Your task to perform on an android device: turn on location history Image 0: 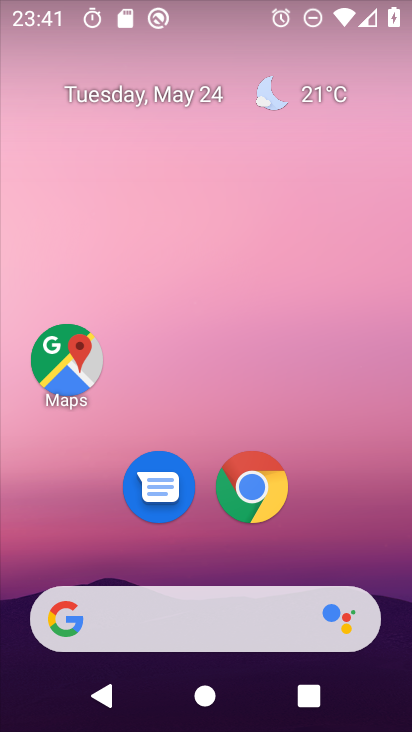
Step 0: click (68, 357)
Your task to perform on an android device: turn on location history Image 1: 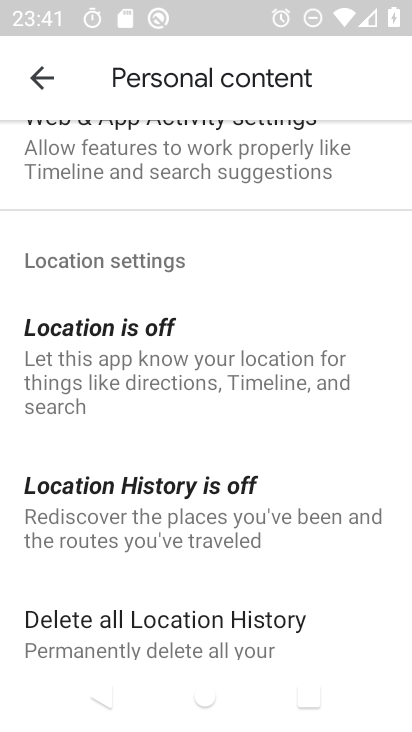
Step 1: click (134, 507)
Your task to perform on an android device: turn on location history Image 2: 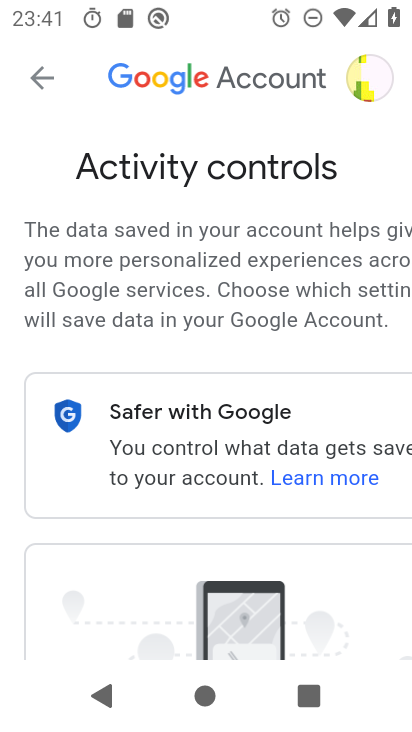
Step 2: drag from (163, 567) to (150, 17)
Your task to perform on an android device: turn on location history Image 3: 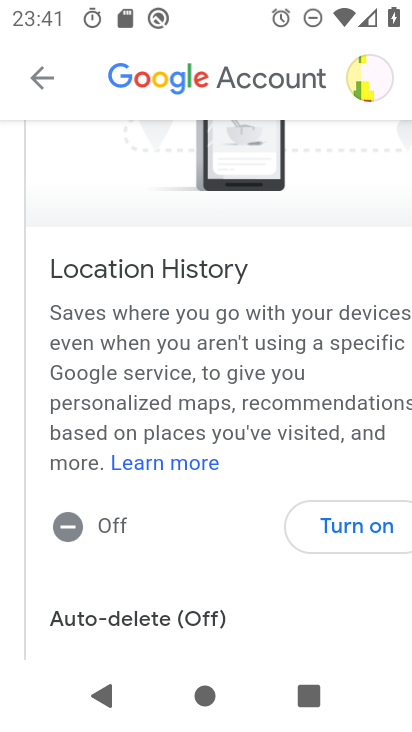
Step 3: click (345, 527)
Your task to perform on an android device: turn on location history Image 4: 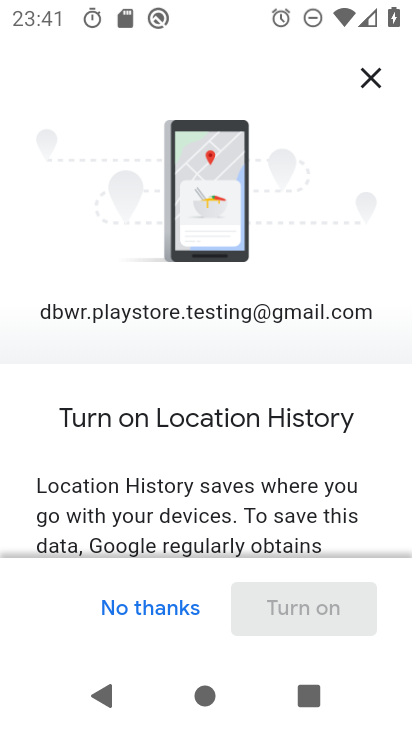
Step 4: drag from (175, 521) to (174, 33)
Your task to perform on an android device: turn on location history Image 5: 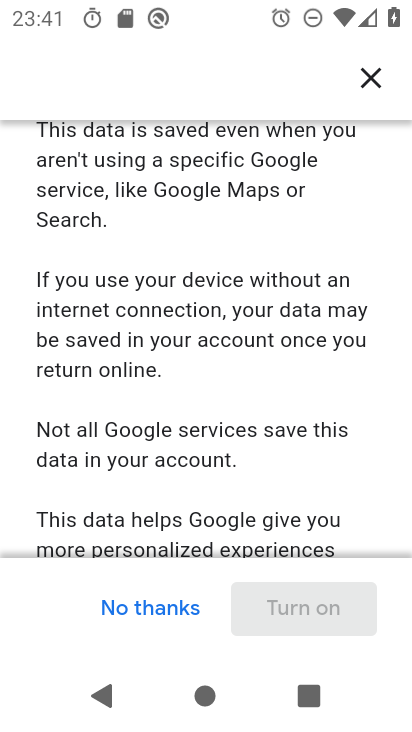
Step 5: drag from (170, 481) to (131, 45)
Your task to perform on an android device: turn on location history Image 6: 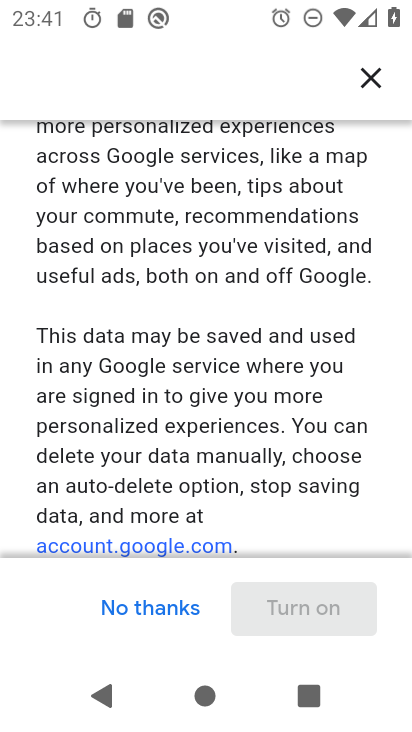
Step 6: drag from (235, 512) to (195, 209)
Your task to perform on an android device: turn on location history Image 7: 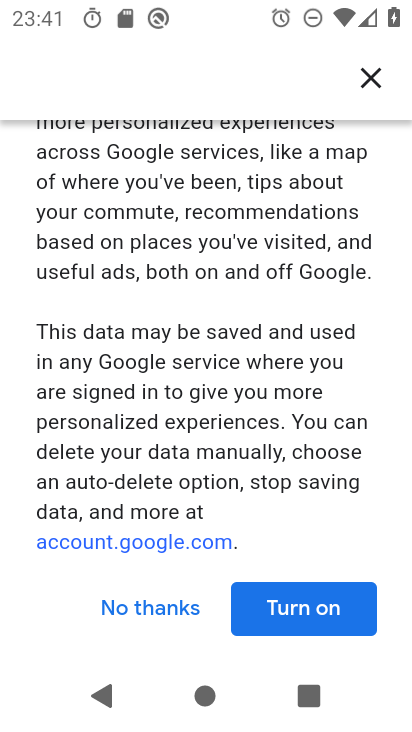
Step 7: click (296, 604)
Your task to perform on an android device: turn on location history Image 8: 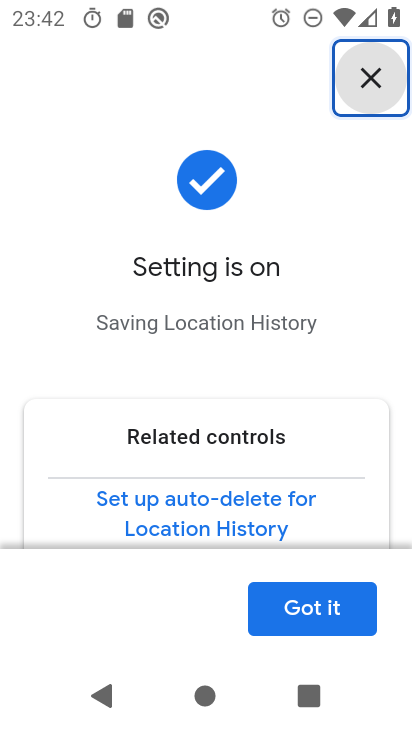
Step 8: click (301, 609)
Your task to perform on an android device: turn on location history Image 9: 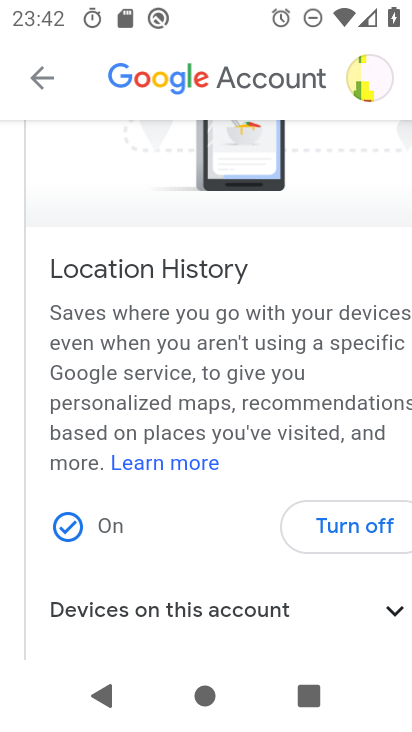
Step 9: task complete